Your task to perform on an android device: check android version Image 0: 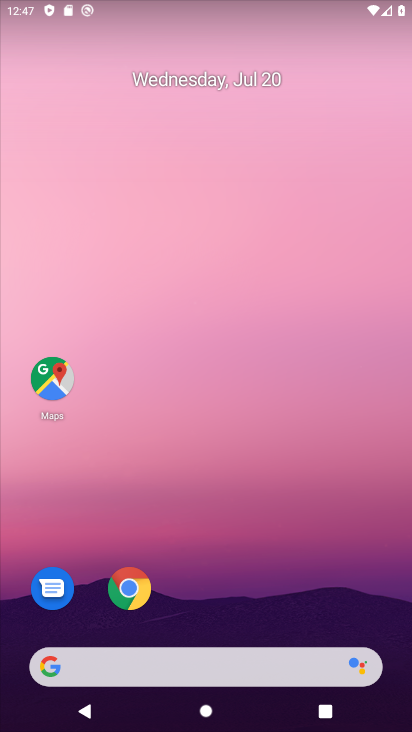
Step 0: drag from (48, 632) to (327, 85)
Your task to perform on an android device: check android version Image 1: 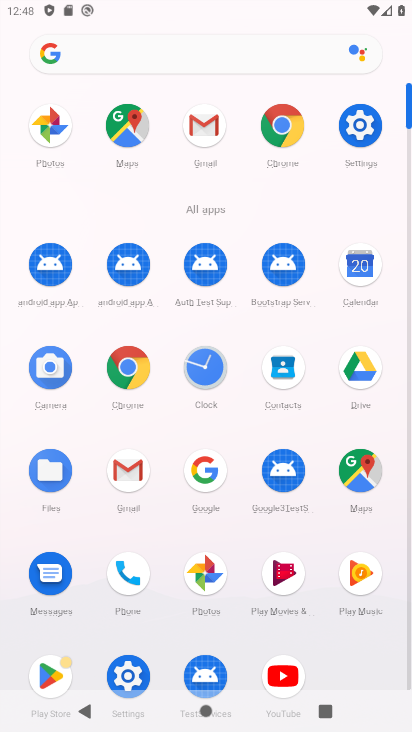
Step 1: click (350, 138)
Your task to perform on an android device: check android version Image 2: 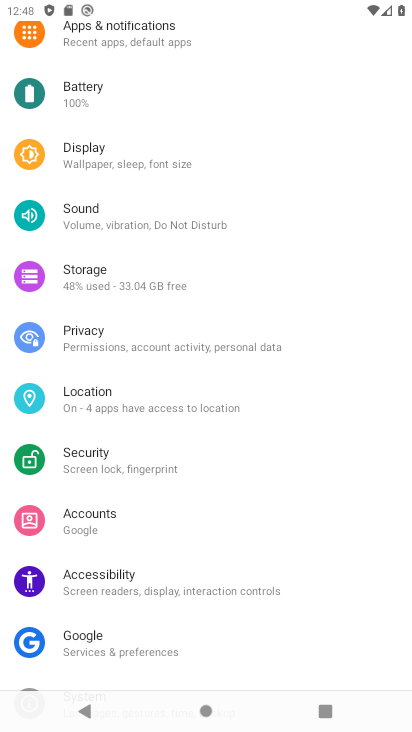
Step 2: drag from (57, 468) to (283, 127)
Your task to perform on an android device: check android version Image 3: 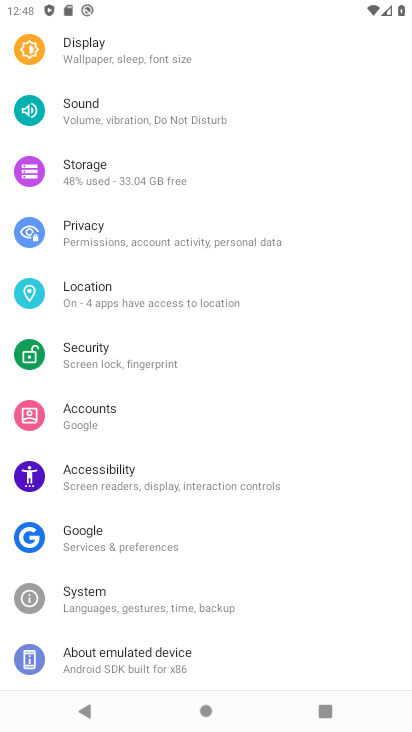
Step 3: click (60, 663)
Your task to perform on an android device: check android version Image 4: 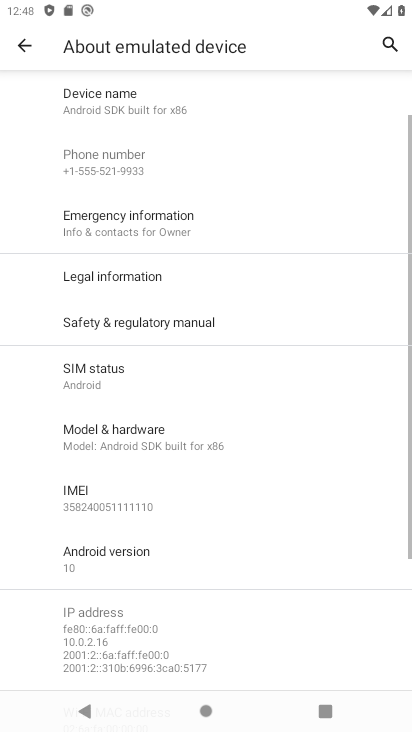
Step 4: drag from (34, 573) to (297, 81)
Your task to perform on an android device: check android version Image 5: 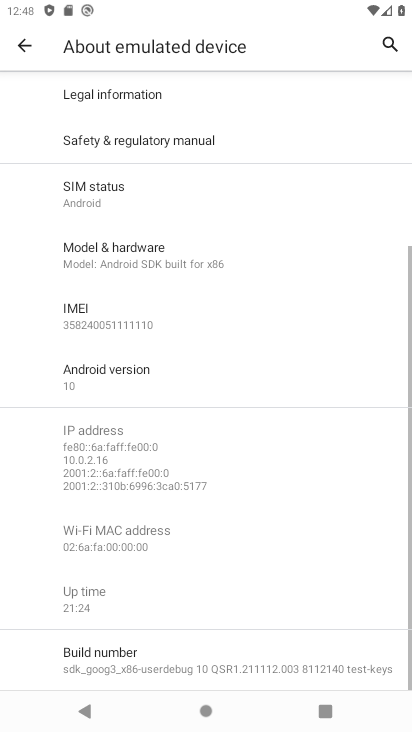
Step 5: click (80, 385)
Your task to perform on an android device: check android version Image 6: 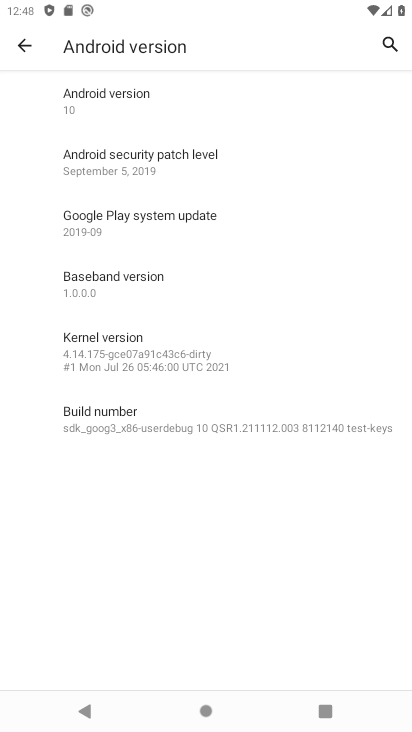
Step 6: task complete